Your task to perform on an android device: visit the assistant section in the google photos Image 0: 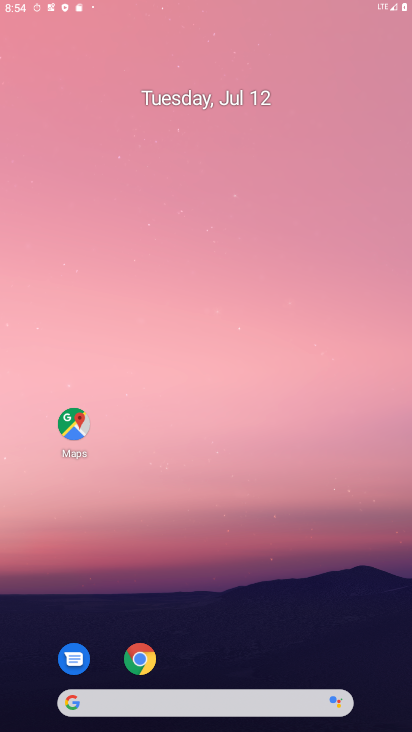
Step 0: press home button
Your task to perform on an android device: visit the assistant section in the google photos Image 1: 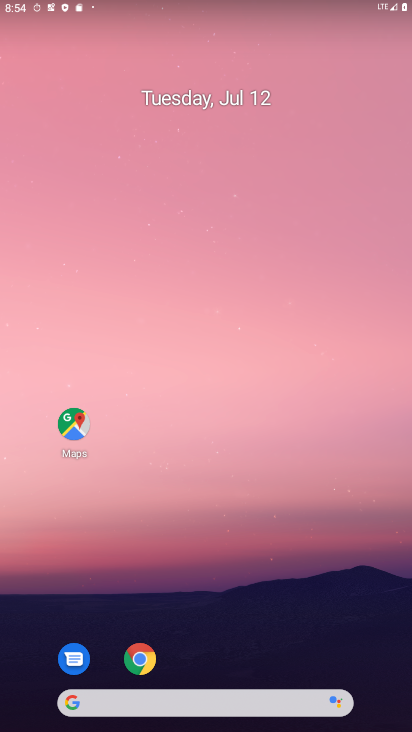
Step 1: drag from (372, 681) to (245, 4)
Your task to perform on an android device: visit the assistant section in the google photos Image 2: 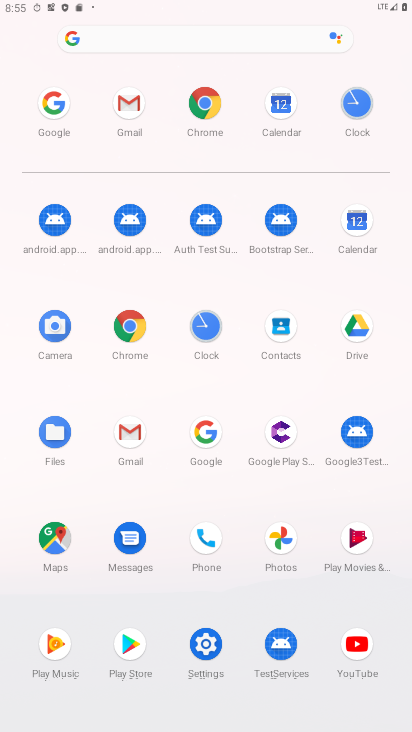
Step 2: click (285, 549)
Your task to perform on an android device: visit the assistant section in the google photos Image 3: 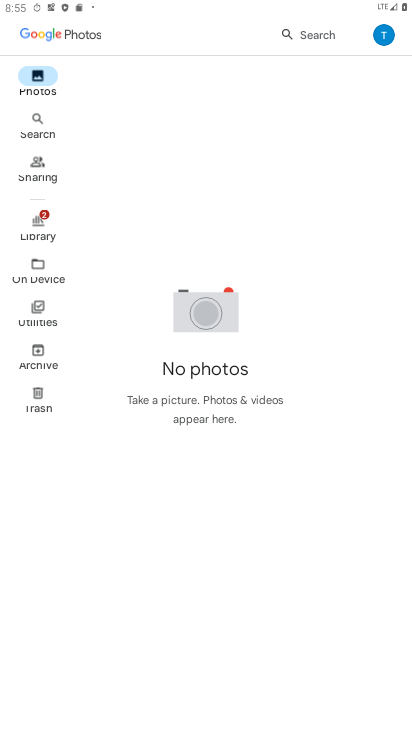
Step 3: task complete